Your task to perform on an android device: Show me recent news Image 0: 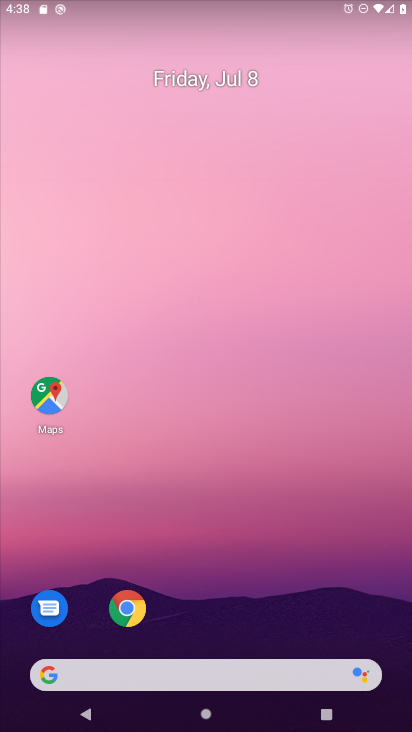
Step 0: drag from (352, 631) to (252, 16)
Your task to perform on an android device: Show me recent news Image 1: 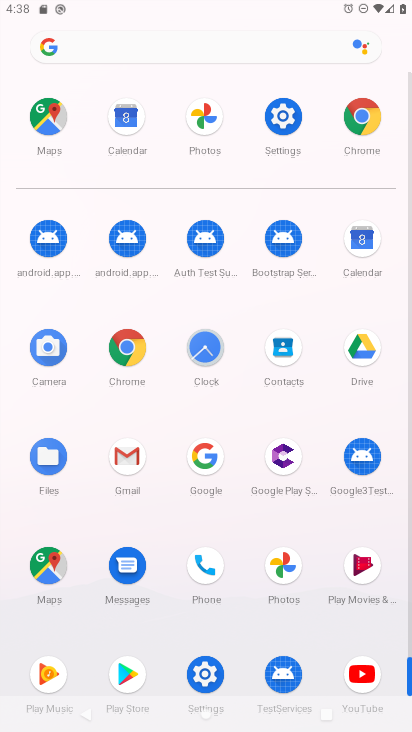
Step 1: click (126, 334)
Your task to perform on an android device: Show me recent news Image 2: 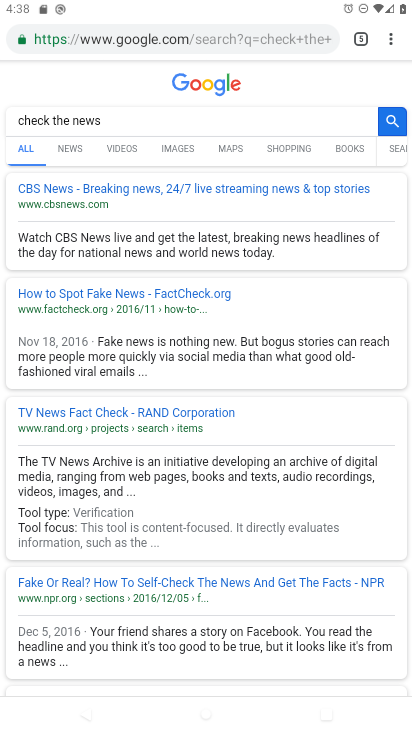
Step 2: click (264, 41)
Your task to perform on an android device: Show me recent news Image 3: 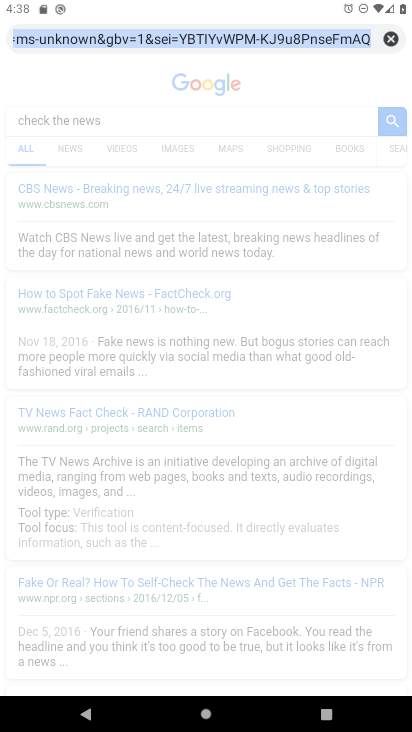
Step 3: press back button
Your task to perform on an android device: Show me recent news Image 4: 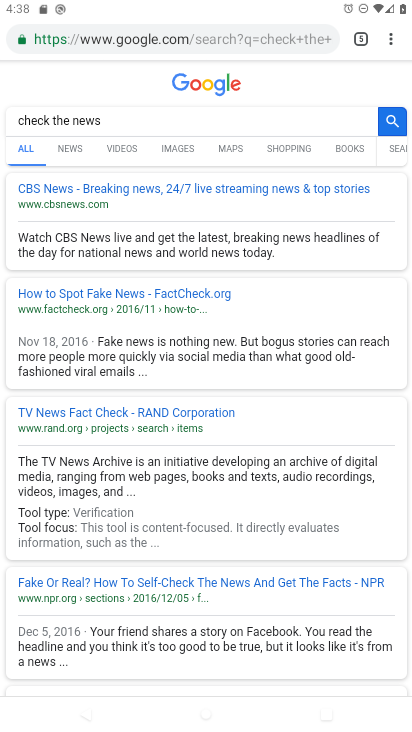
Step 4: click (270, 40)
Your task to perform on an android device: Show me recent news Image 5: 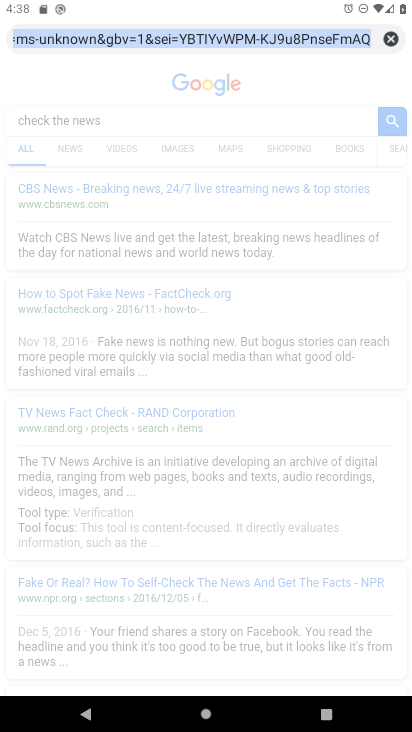
Step 5: task complete